Your task to perform on an android device: What's on my calendar tomorrow? Image 0: 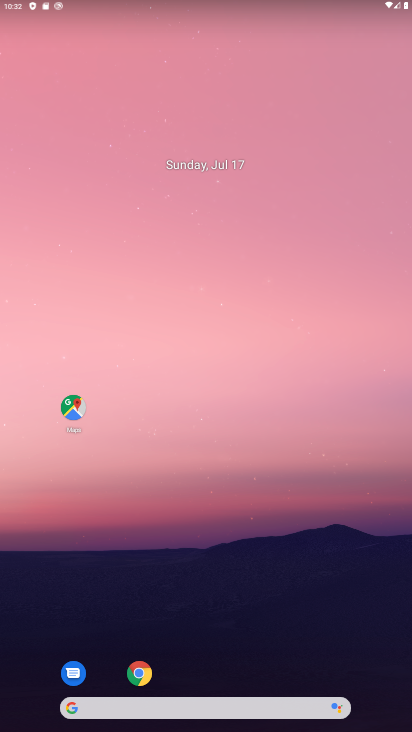
Step 0: drag from (225, 658) to (214, 93)
Your task to perform on an android device: What's on my calendar tomorrow? Image 1: 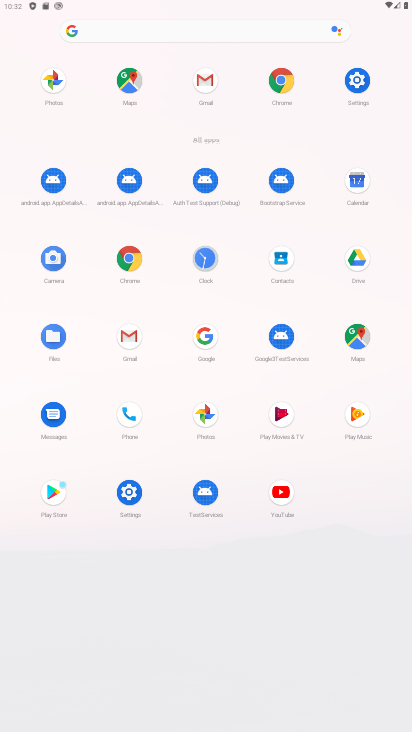
Step 1: click (351, 181)
Your task to perform on an android device: What's on my calendar tomorrow? Image 2: 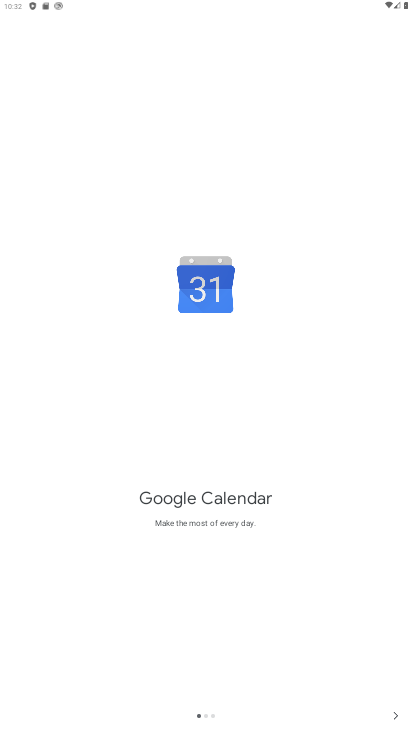
Step 2: click (396, 718)
Your task to perform on an android device: What's on my calendar tomorrow? Image 3: 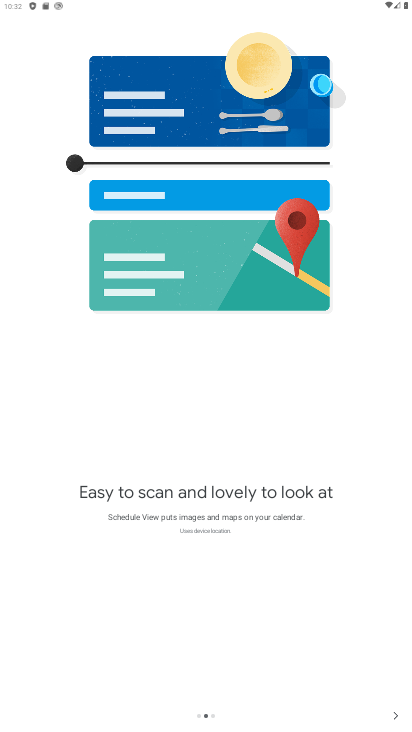
Step 3: click (396, 717)
Your task to perform on an android device: What's on my calendar tomorrow? Image 4: 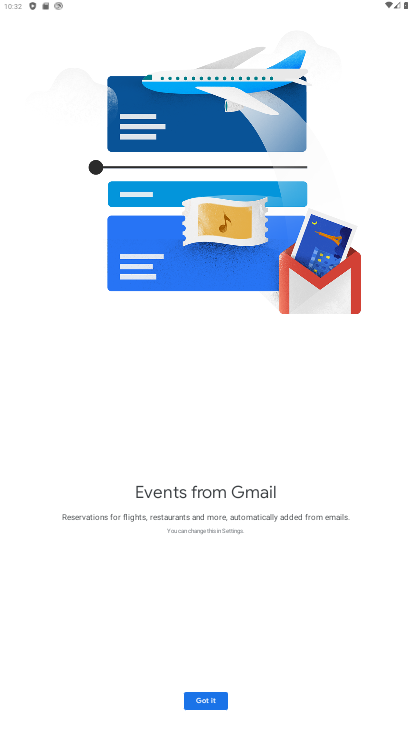
Step 4: click (199, 699)
Your task to perform on an android device: What's on my calendar tomorrow? Image 5: 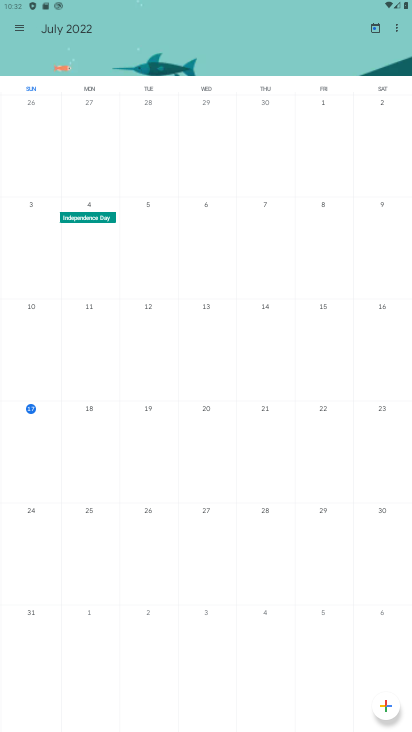
Step 5: click (82, 413)
Your task to perform on an android device: What's on my calendar tomorrow? Image 6: 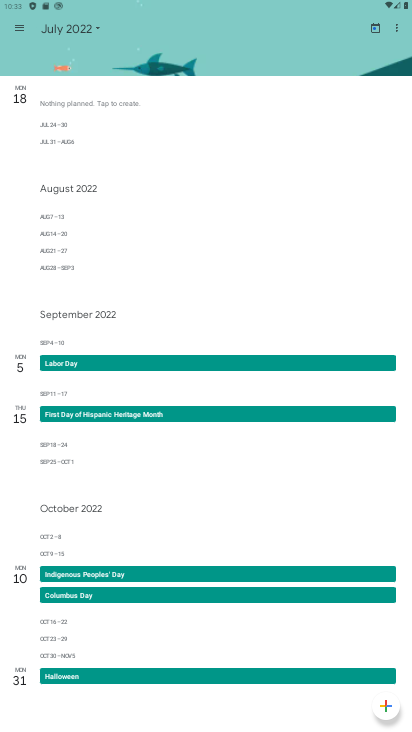
Step 6: task complete